Your task to perform on an android device: move an email to a new category in the gmail app Image 0: 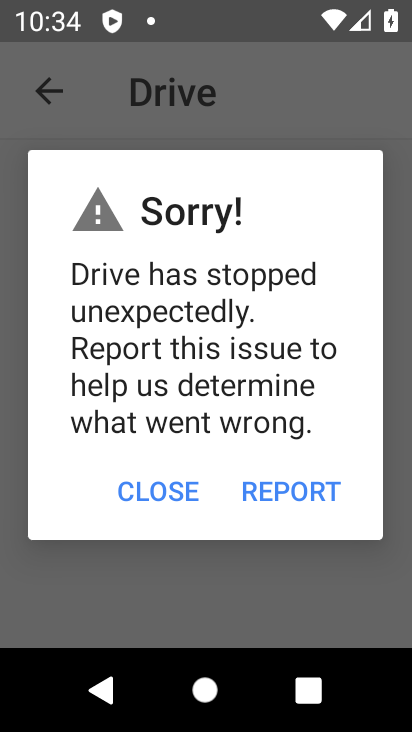
Step 0: press home button
Your task to perform on an android device: move an email to a new category in the gmail app Image 1: 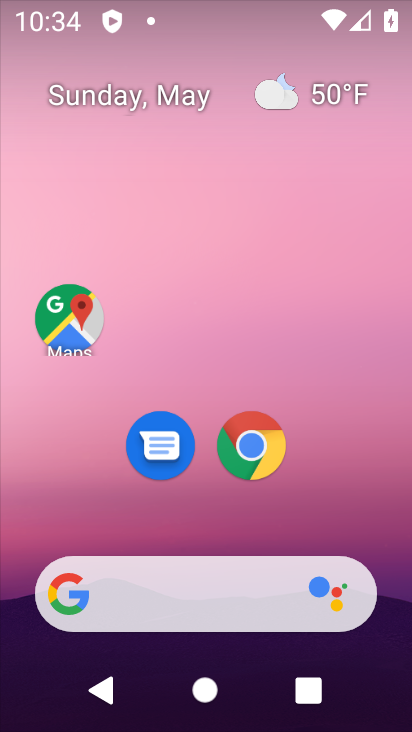
Step 1: drag from (202, 521) to (269, 43)
Your task to perform on an android device: move an email to a new category in the gmail app Image 2: 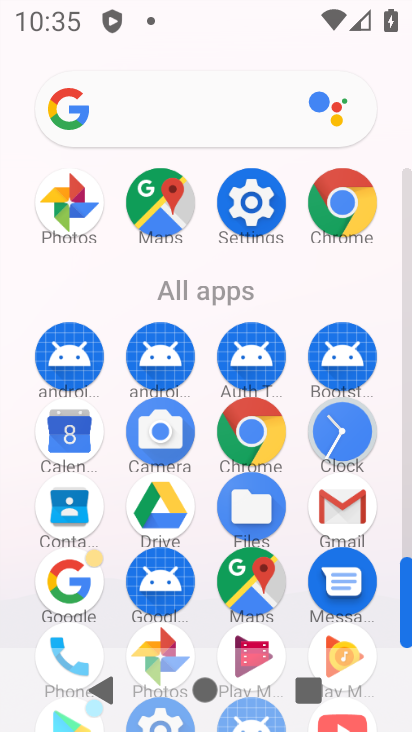
Step 2: click (336, 520)
Your task to perform on an android device: move an email to a new category in the gmail app Image 3: 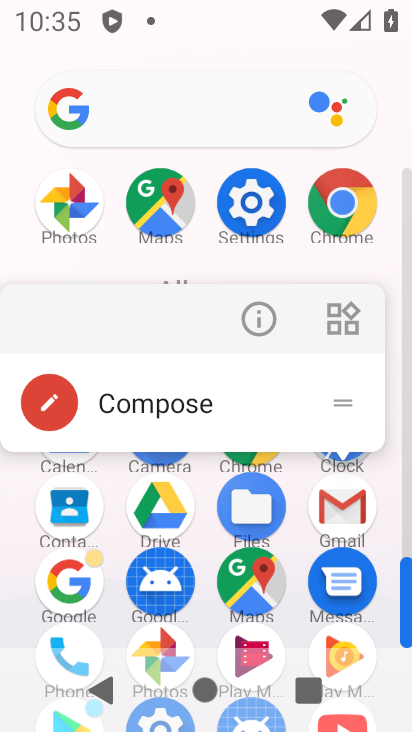
Step 3: click (334, 516)
Your task to perform on an android device: move an email to a new category in the gmail app Image 4: 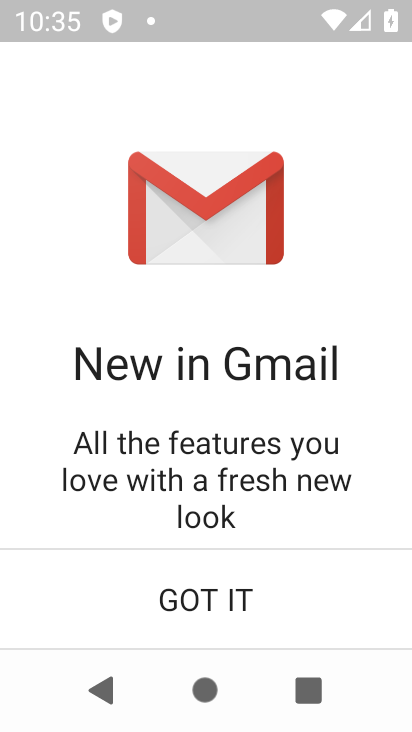
Step 4: click (163, 596)
Your task to perform on an android device: move an email to a new category in the gmail app Image 5: 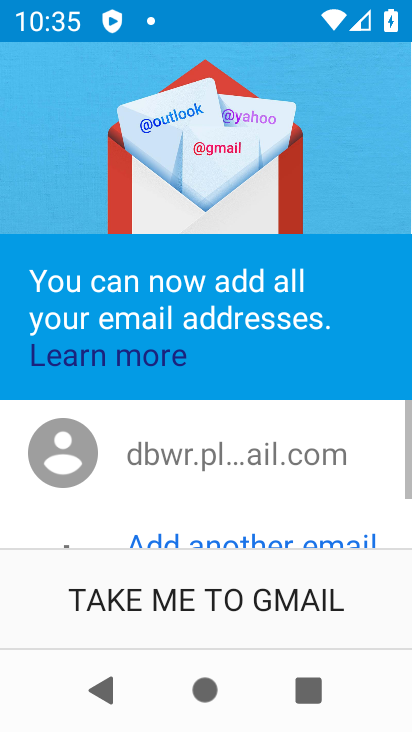
Step 5: click (163, 602)
Your task to perform on an android device: move an email to a new category in the gmail app Image 6: 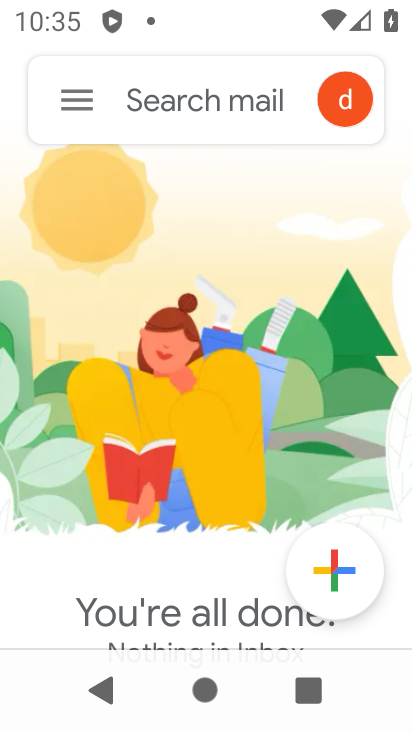
Step 6: click (70, 105)
Your task to perform on an android device: move an email to a new category in the gmail app Image 7: 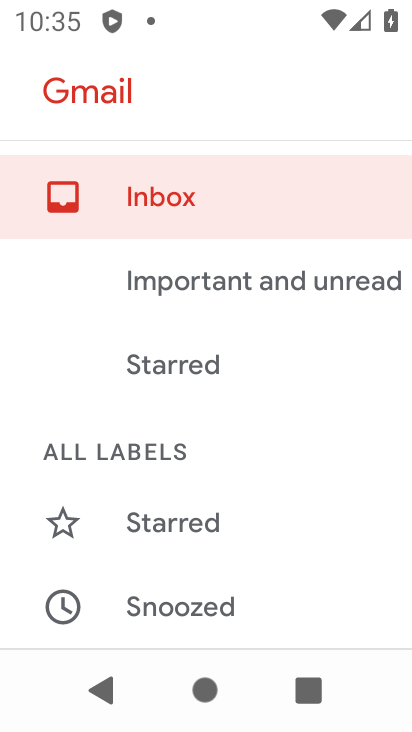
Step 7: drag from (99, 554) to (167, 168)
Your task to perform on an android device: move an email to a new category in the gmail app Image 8: 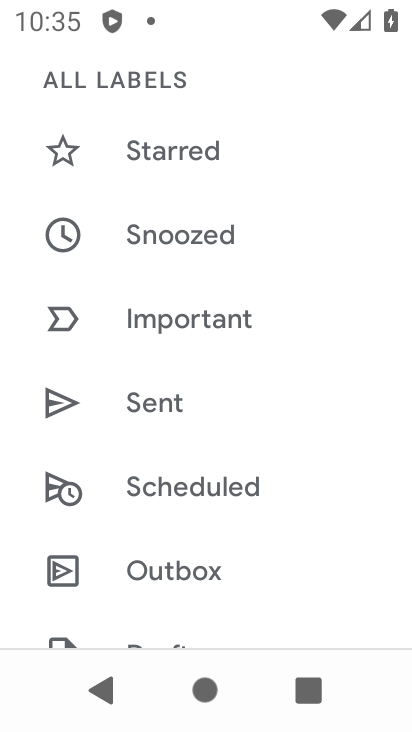
Step 8: drag from (144, 506) to (239, 56)
Your task to perform on an android device: move an email to a new category in the gmail app Image 9: 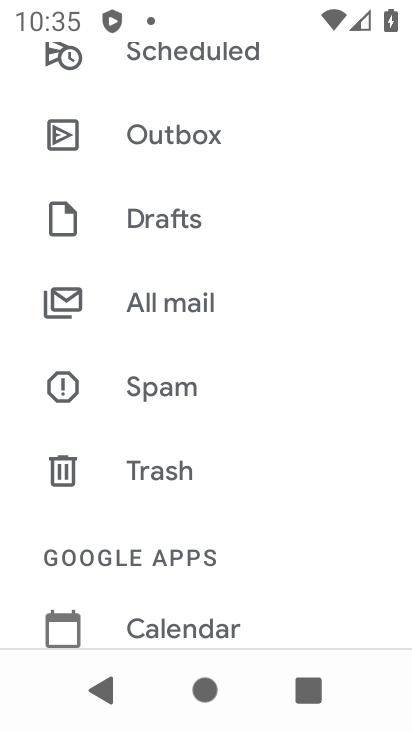
Step 9: click (166, 311)
Your task to perform on an android device: move an email to a new category in the gmail app Image 10: 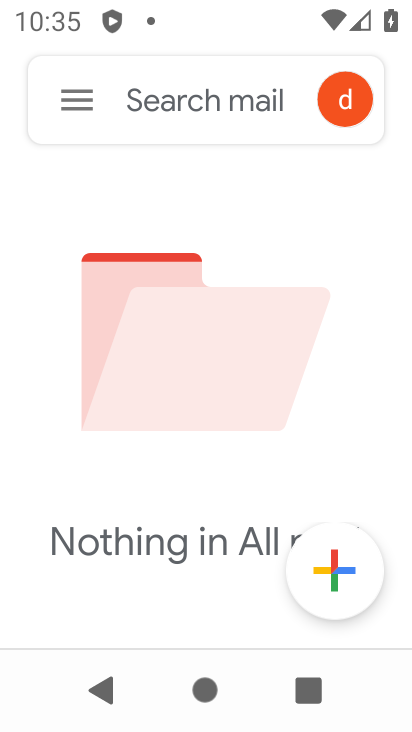
Step 10: task complete